Your task to perform on an android device: change text size in settings app Image 0: 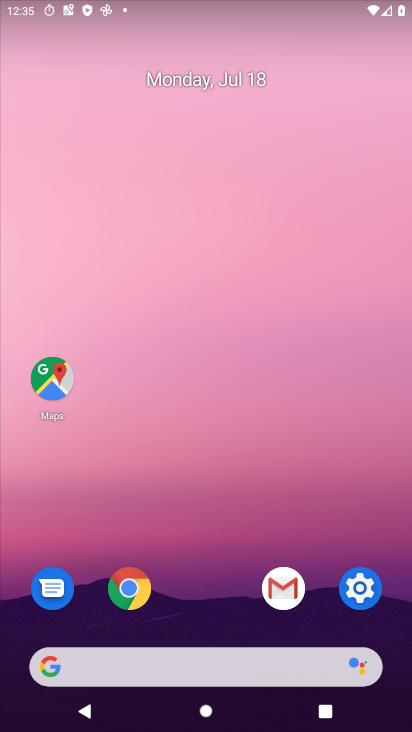
Step 0: click (352, 592)
Your task to perform on an android device: change text size in settings app Image 1: 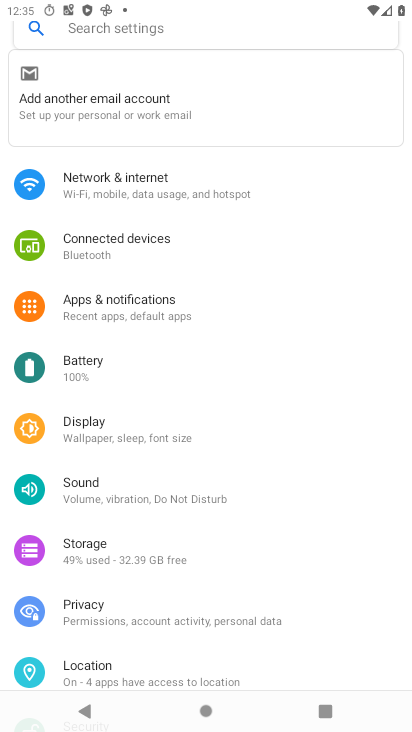
Step 1: click (101, 33)
Your task to perform on an android device: change text size in settings app Image 2: 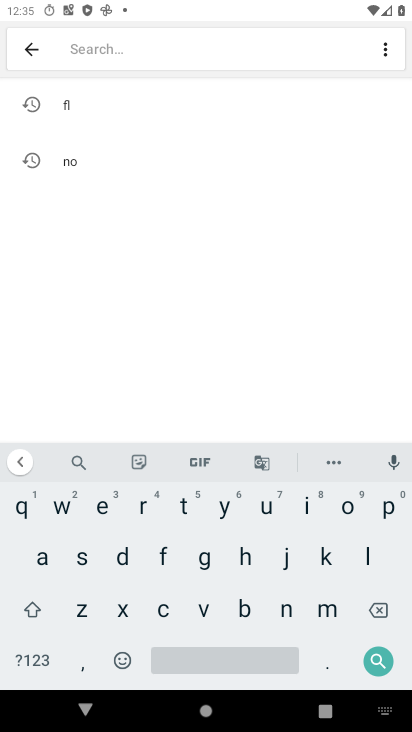
Step 2: click (81, 557)
Your task to perform on an android device: change text size in settings app Image 3: 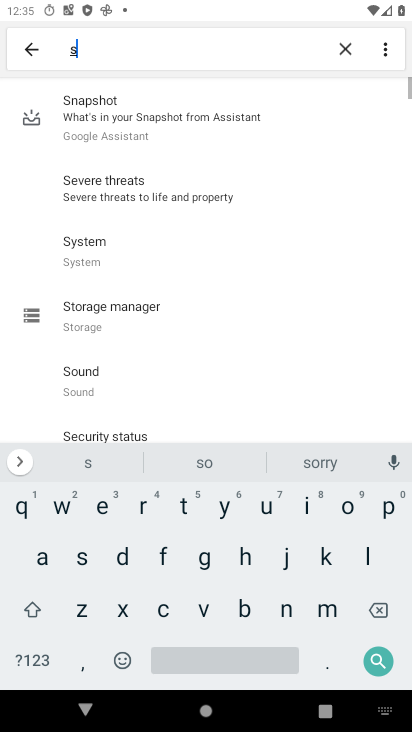
Step 3: click (308, 512)
Your task to perform on an android device: change text size in settings app Image 4: 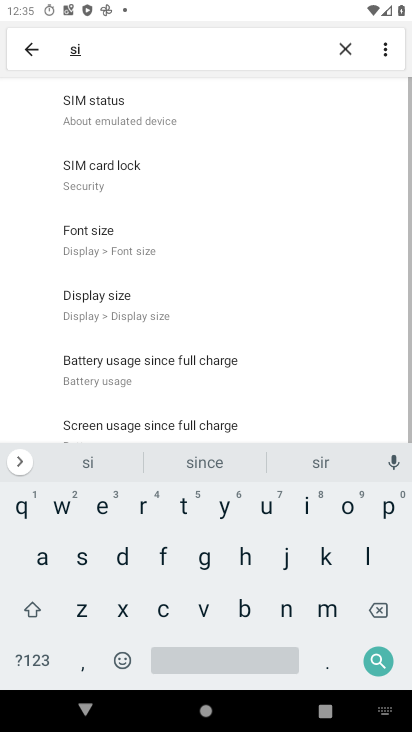
Step 4: click (85, 606)
Your task to perform on an android device: change text size in settings app Image 5: 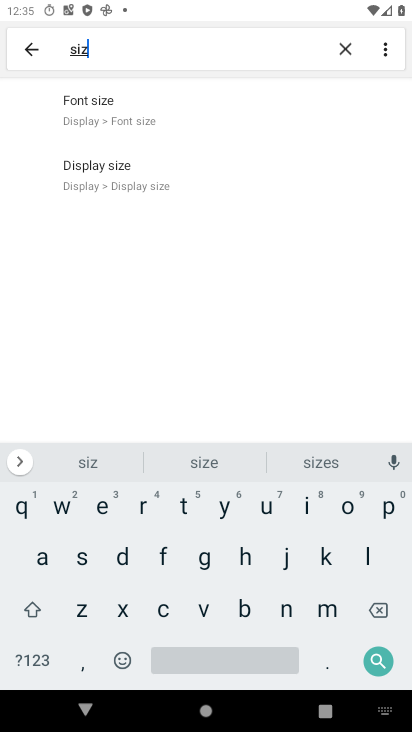
Step 5: click (108, 107)
Your task to perform on an android device: change text size in settings app Image 6: 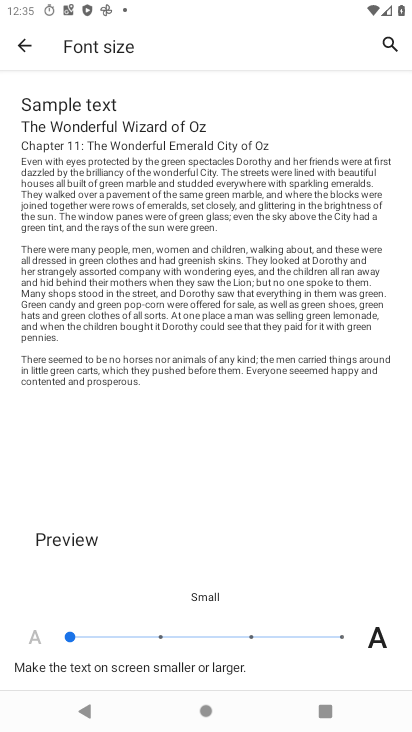
Step 6: click (153, 632)
Your task to perform on an android device: change text size in settings app Image 7: 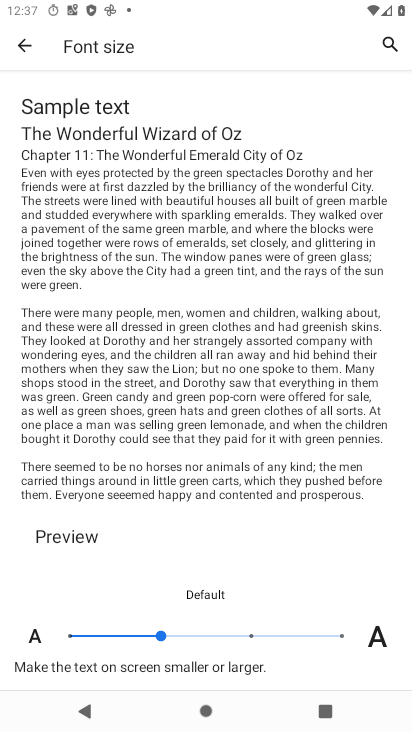
Step 7: task complete